Your task to perform on an android device: snooze an email in the gmail app Image 0: 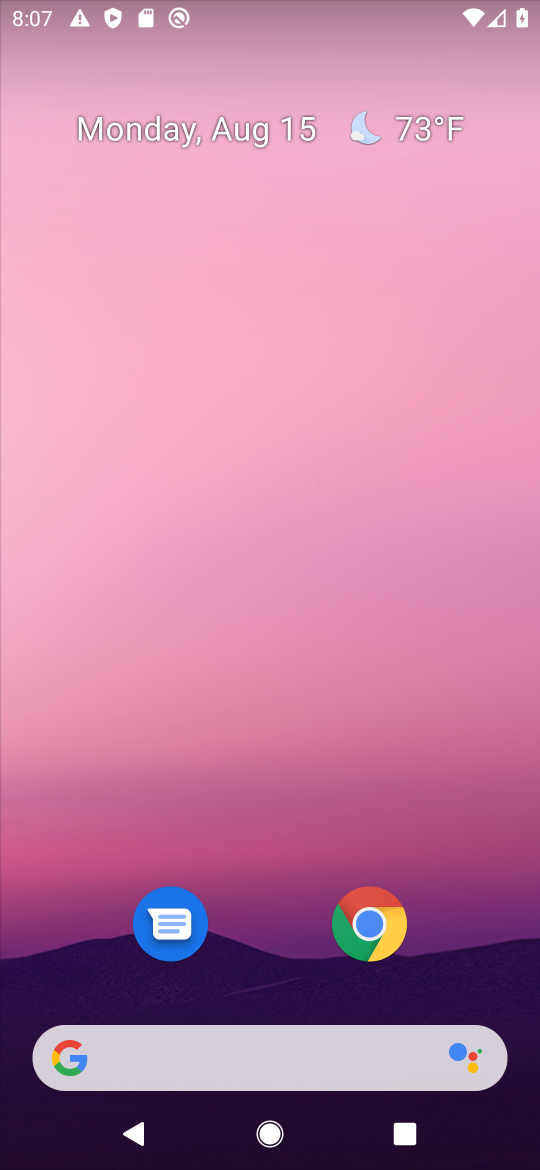
Step 0: drag from (509, 982) to (448, 97)
Your task to perform on an android device: snooze an email in the gmail app Image 1: 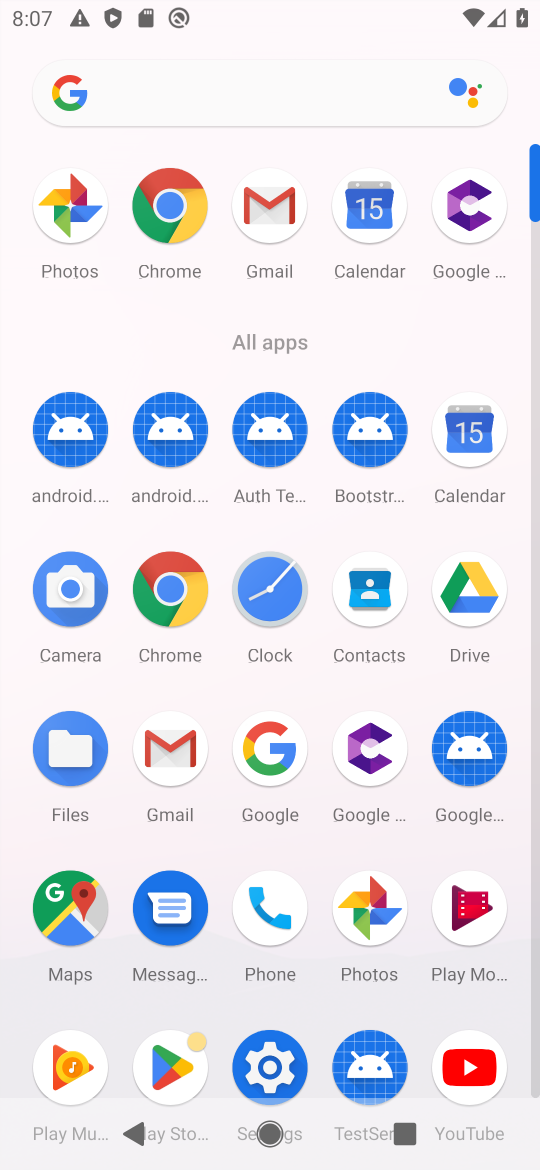
Step 1: click (169, 752)
Your task to perform on an android device: snooze an email in the gmail app Image 2: 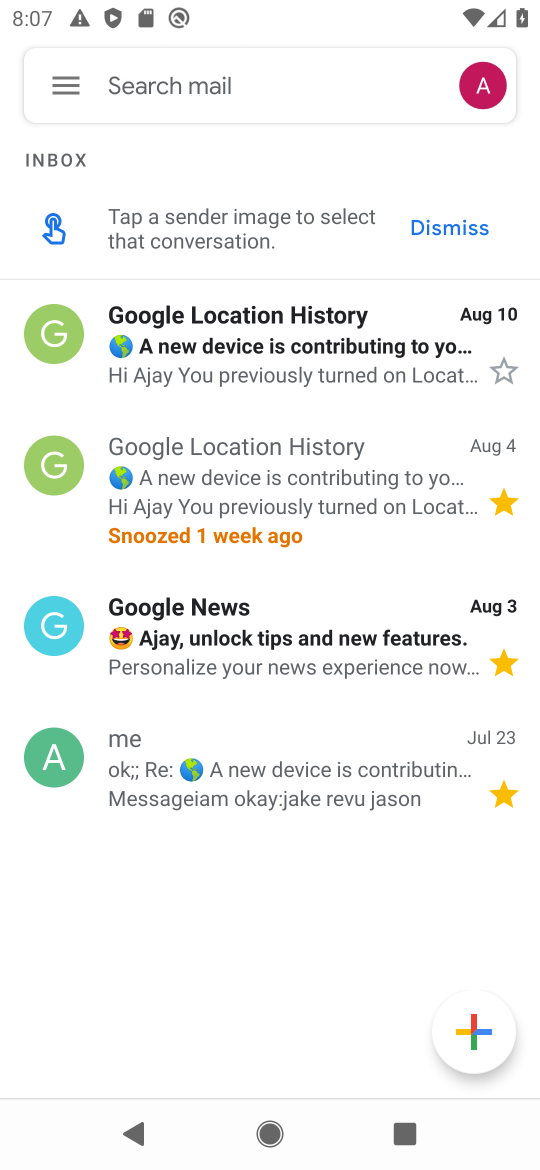
Step 2: click (319, 359)
Your task to perform on an android device: snooze an email in the gmail app Image 3: 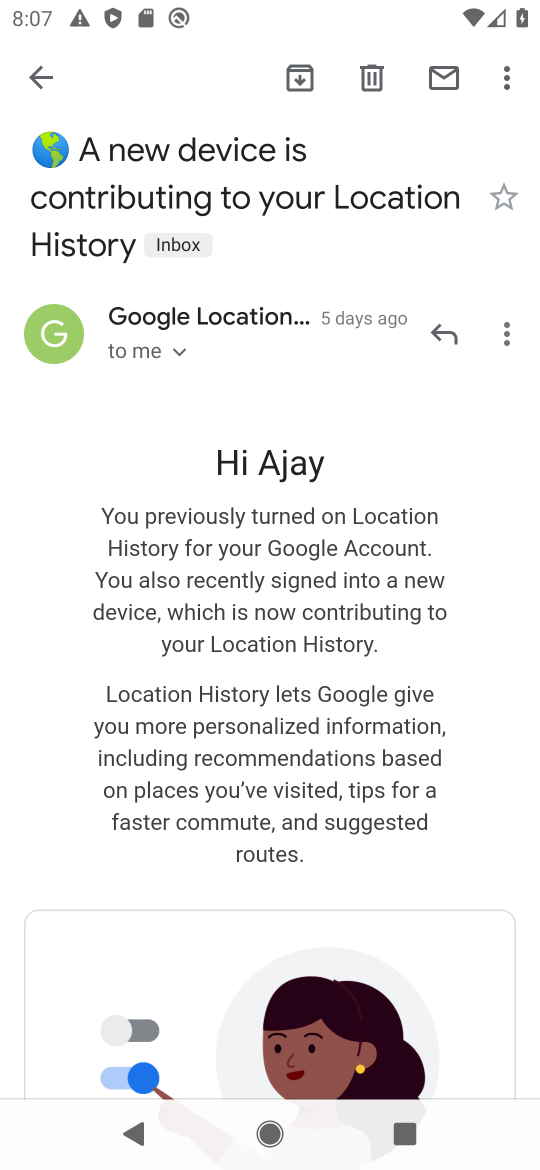
Step 3: click (505, 89)
Your task to perform on an android device: snooze an email in the gmail app Image 4: 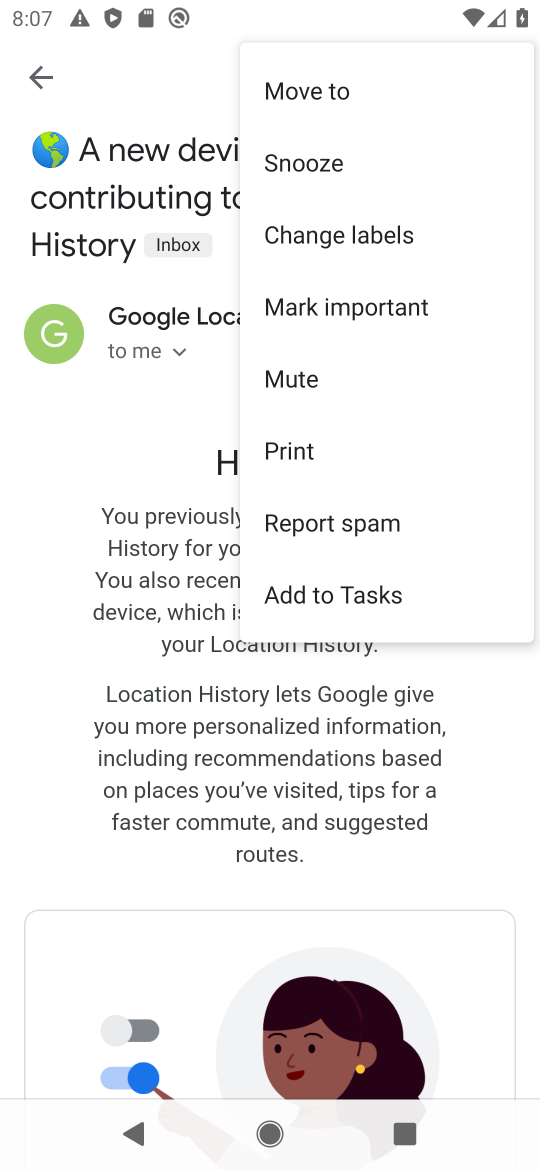
Step 4: click (287, 160)
Your task to perform on an android device: snooze an email in the gmail app Image 5: 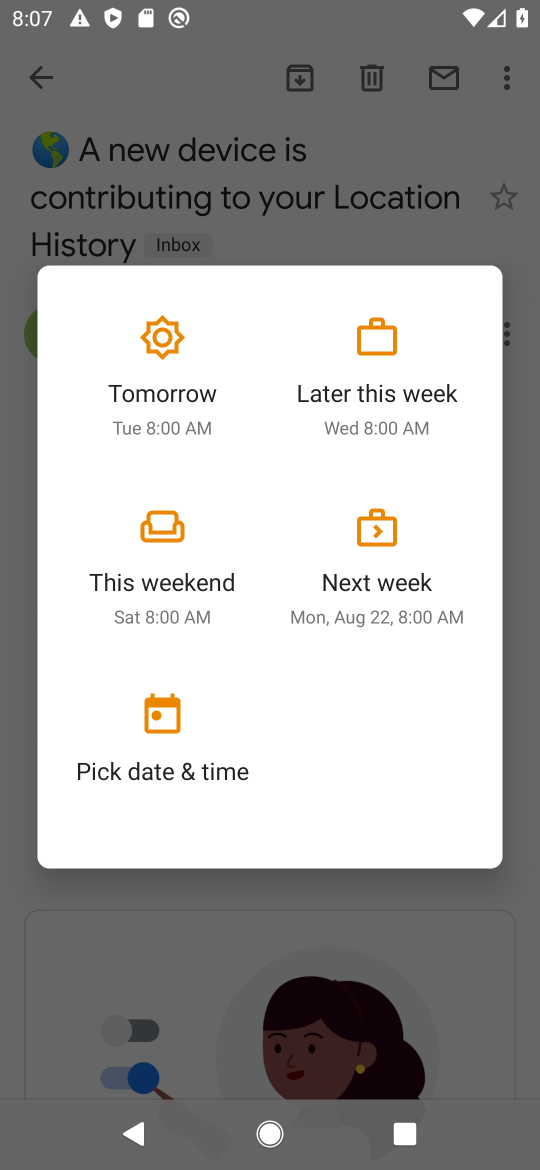
Step 5: click (167, 570)
Your task to perform on an android device: snooze an email in the gmail app Image 6: 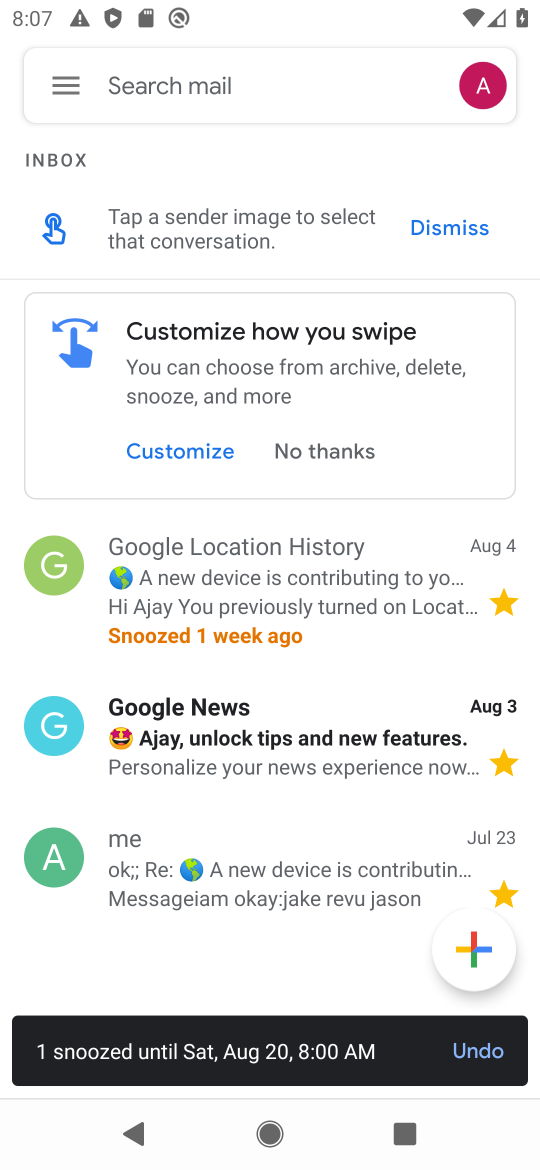
Step 6: task complete